Your task to perform on an android device: Clear all items from cart on newegg. Add alienware aurora to the cart on newegg Image 0: 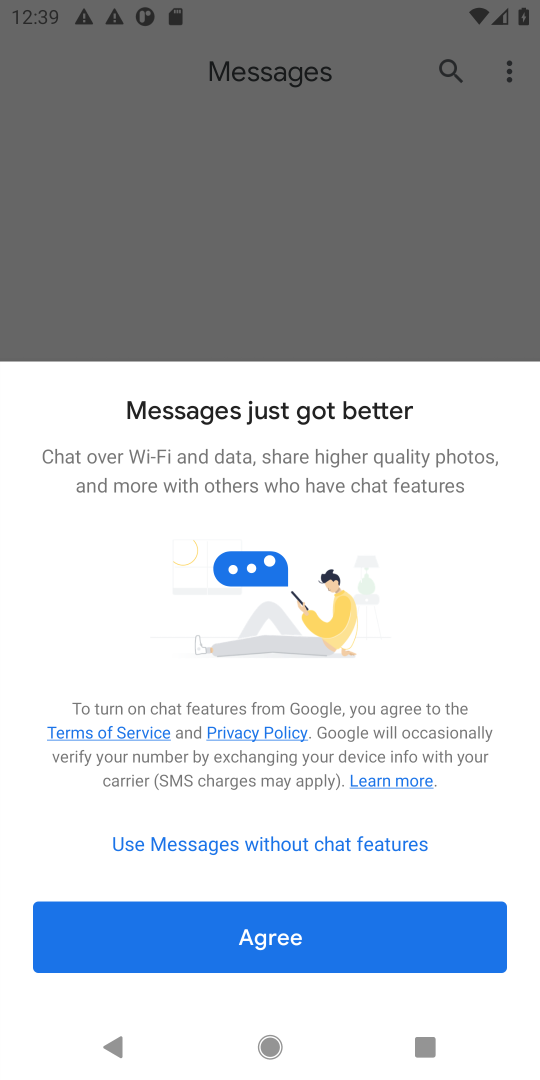
Step 0: press home button
Your task to perform on an android device: Clear all items from cart on newegg. Add alienware aurora to the cart on newegg Image 1: 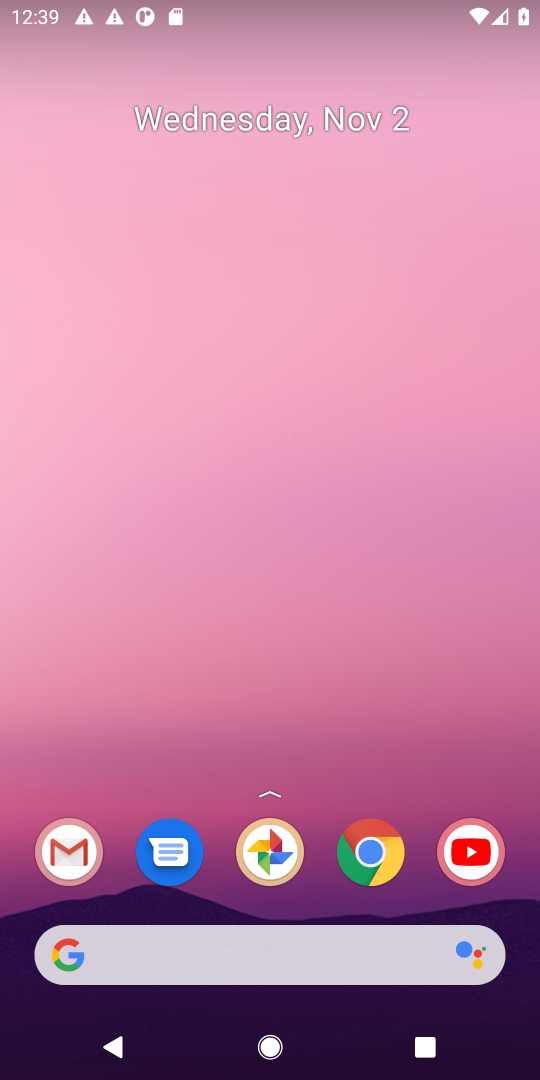
Step 1: click (60, 937)
Your task to perform on an android device: Clear all items from cart on newegg. Add alienware aurora to the cart on newegg Image 2: 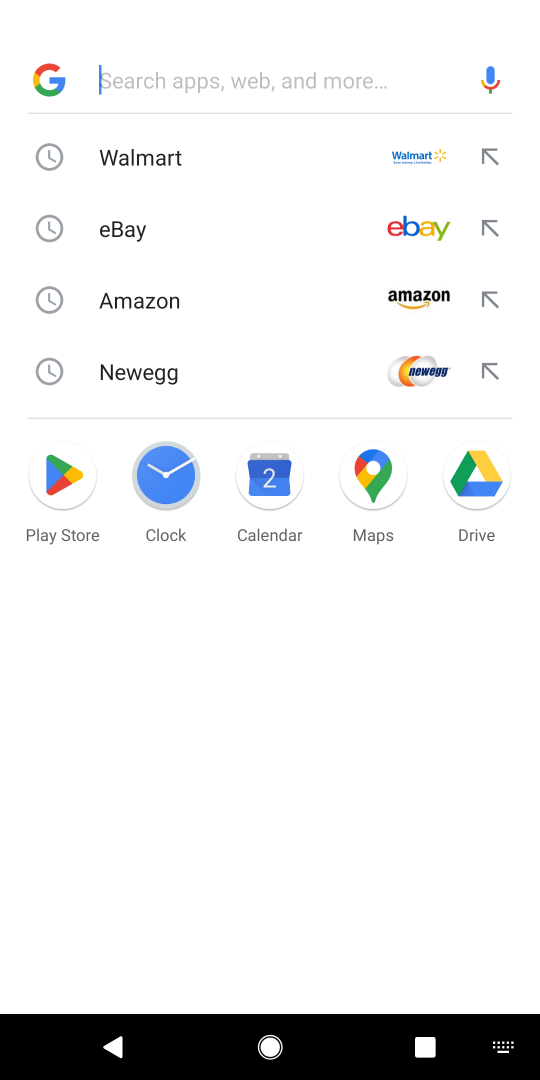
Step 2: click (131, 367)
Your task to perform on an android device: Clear all items from cart on newegg. Add alienware aurora to the cart on newegg Image 3: 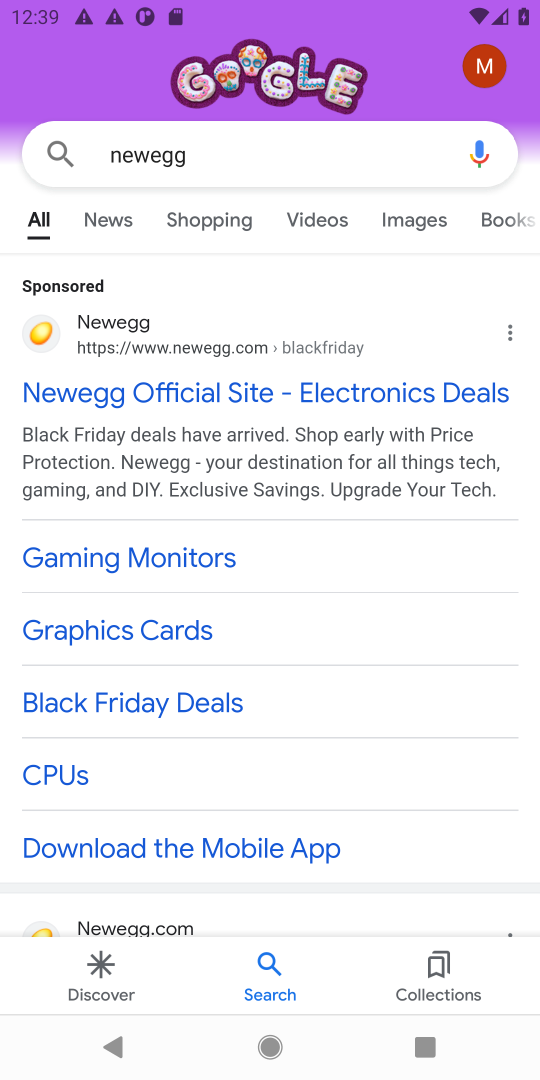
Step 3: click (179, 398)
Your task to perform on an android device: Clear all items from cart on newegg. Add alienware aurora to the cart on newegg Image 4: 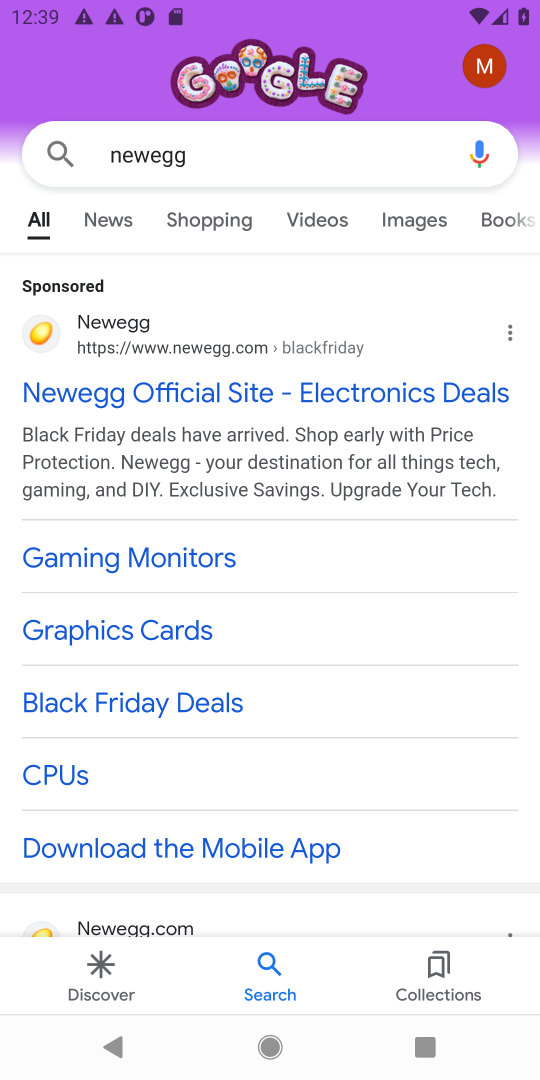
Step 4: click (148, 925)
Your task to perform on an android device: Clear all items from cart on newegg. Add alienware aurora to the cart on newegg Image 5: 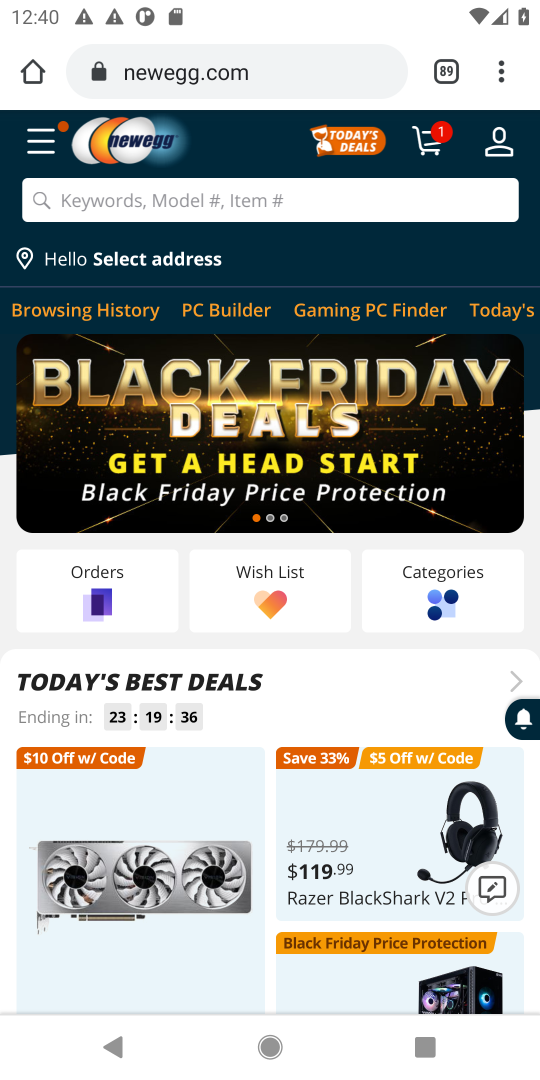
Step 5: click (432, 140)
Your task to perform on an android device: Clear all items from cart on newegg. Add alienware aurora to the cart on newegg Image 6: 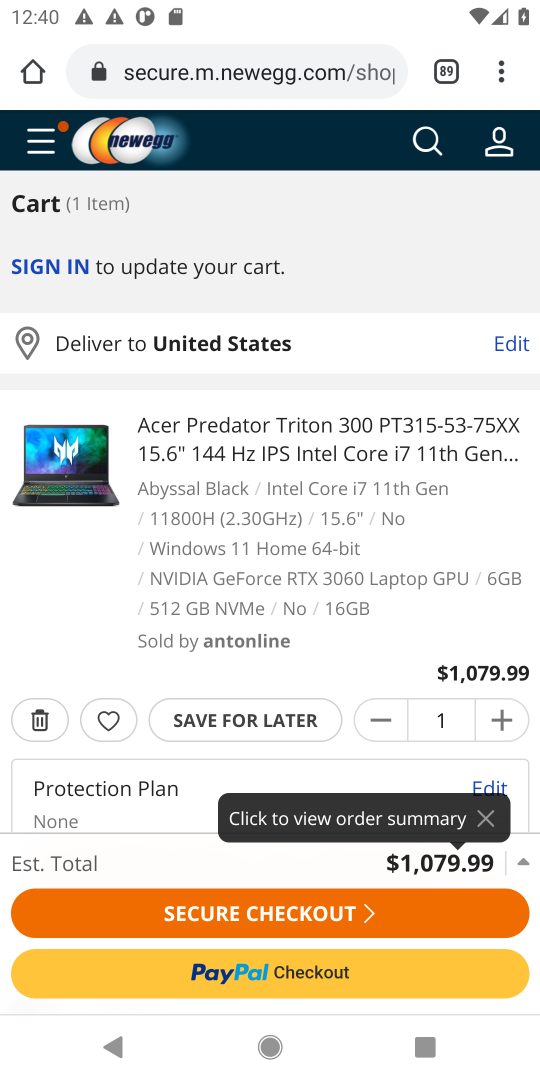
Step 6: click (32, 725)
Your task to perform on an android device: Clear all items from cart on newegg. Add alienware aurora to the cart on newegg Image 7: 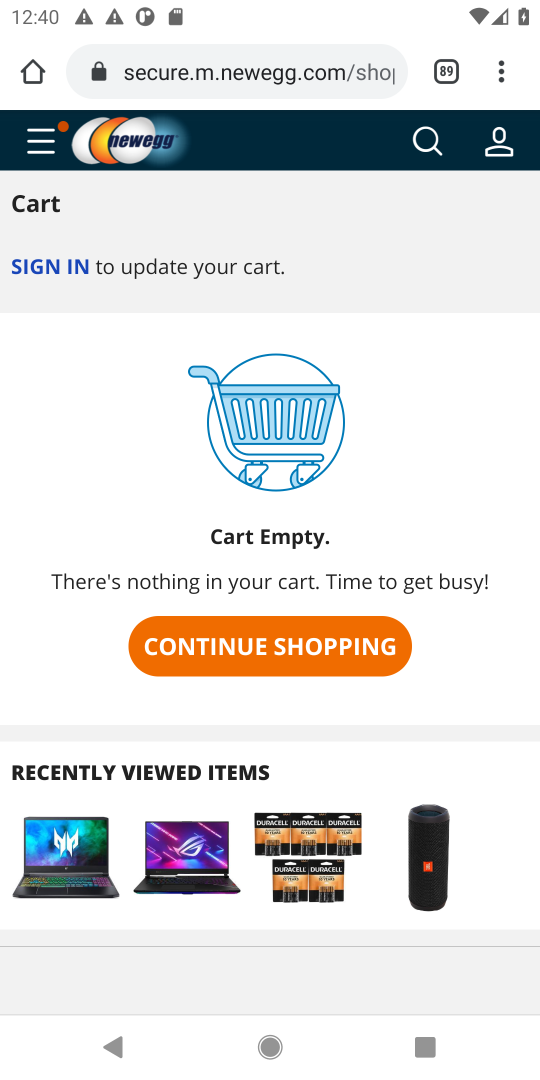
Step 7: click (414, 142)
Your task to perform on an android device: Clear all items from cart on newegg. Add alienware aurora to the cart on newegg Image 8: 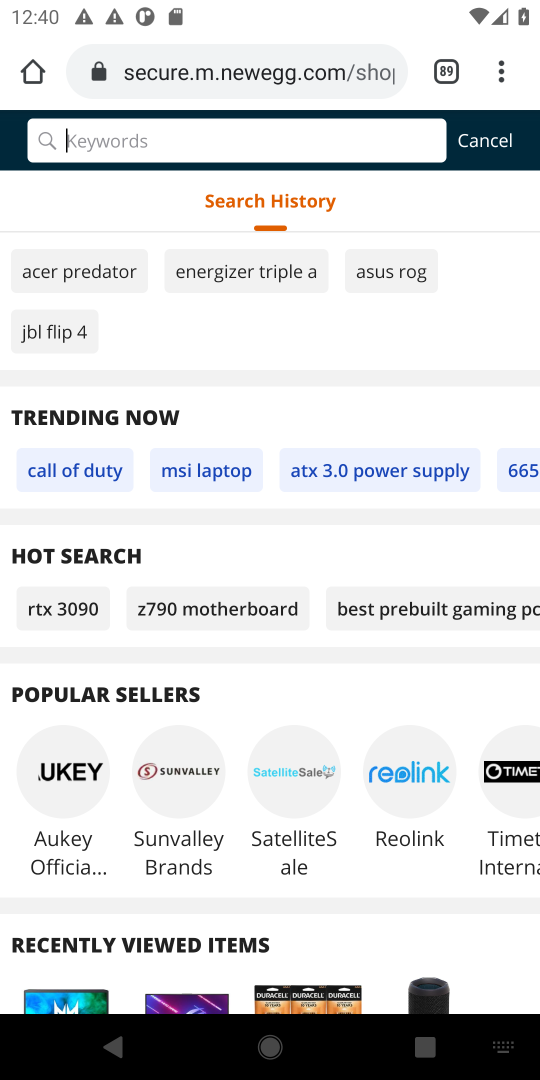
Step 8: type " alienware aurora"
Your task to perform on an android device: Clear all items from cart on newegg. Add alienware aurora to the cart on newegg Image 9: 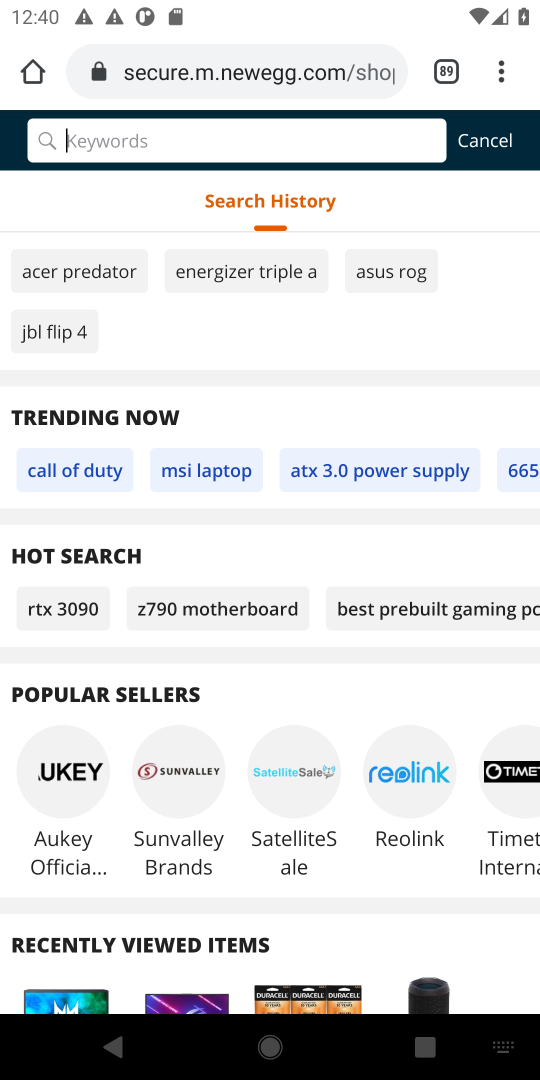
Step 9: click (185, 141)
Your task to perform on an android device: Clear all items from cart on newegg. Add alienware aurora to the cart on newegg Image 10: 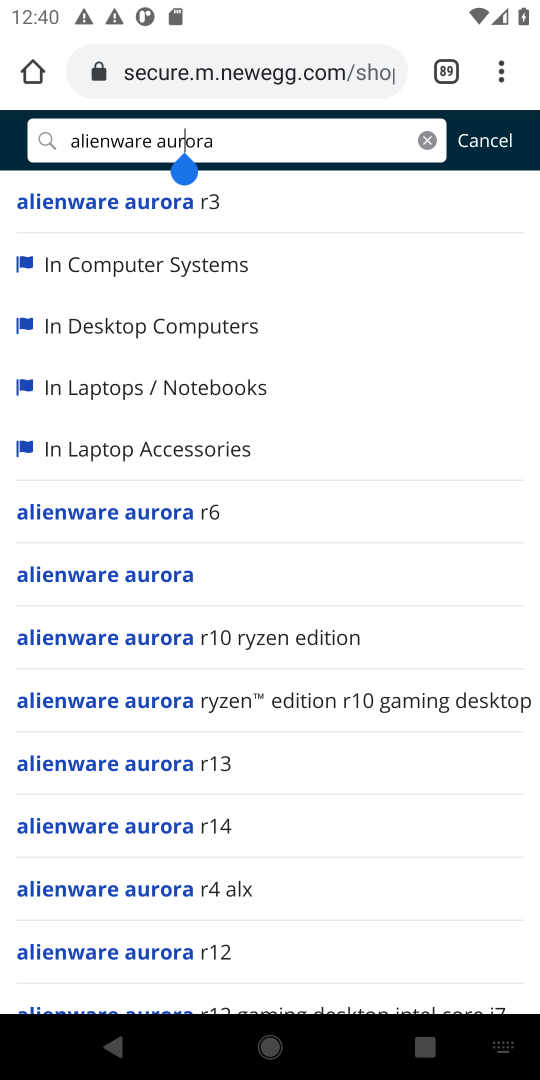
Step 10: press enter
Your task to perform on an android device: Clear all items from cart on newegg. Add alienware aurora to the cart on newegg Image 11: 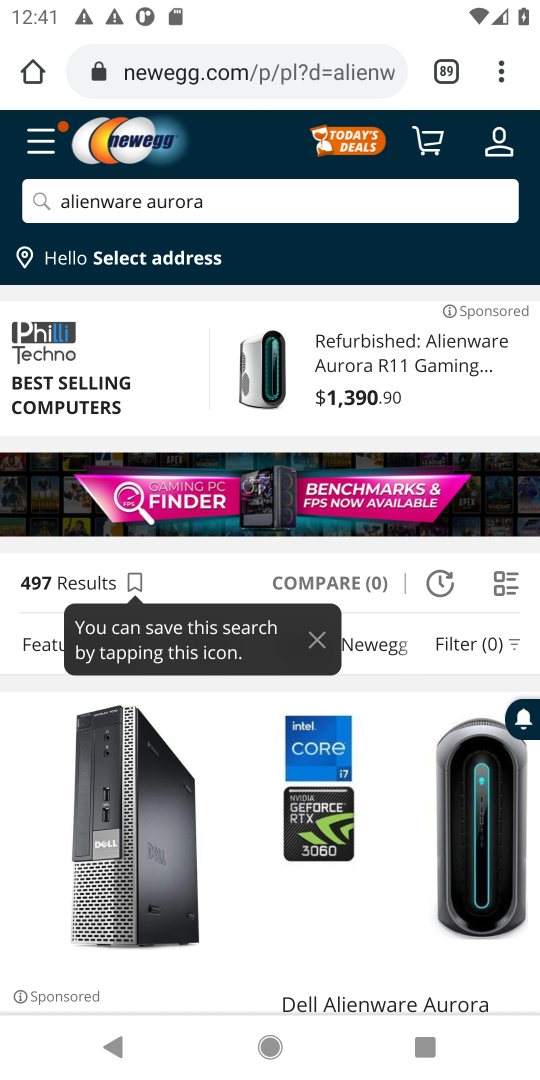
Step 11: click (499, 926)
Your task to perform on an android device: Clear all items from cart on newegg. Add alienware aurora to the cart on newegg Image 12: 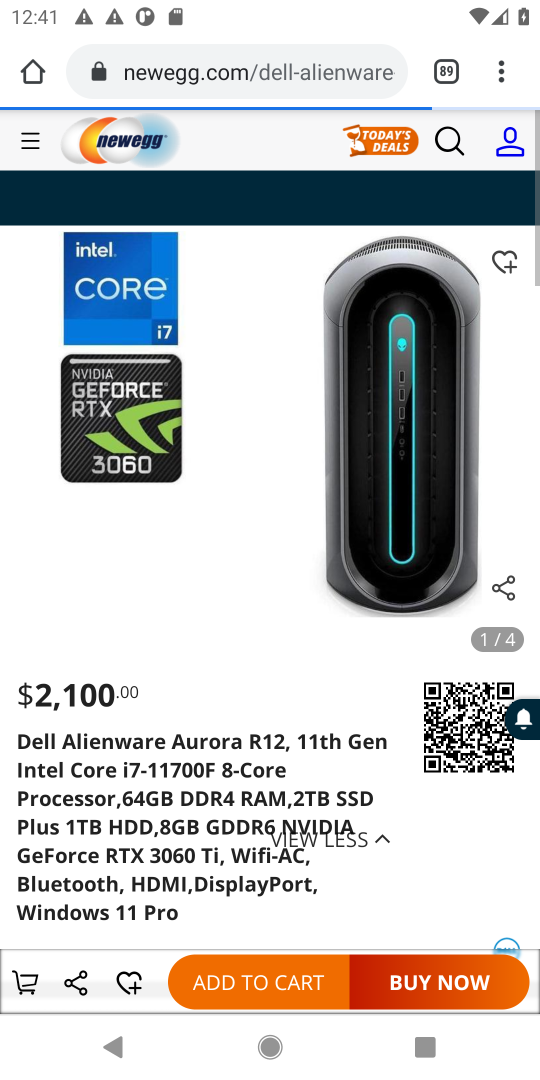
Step 12: click (261, 994)
Your task to perform on an android device: Clear all items from cart on newegg. Add alienware aurora to the cart on newegg Image 13: 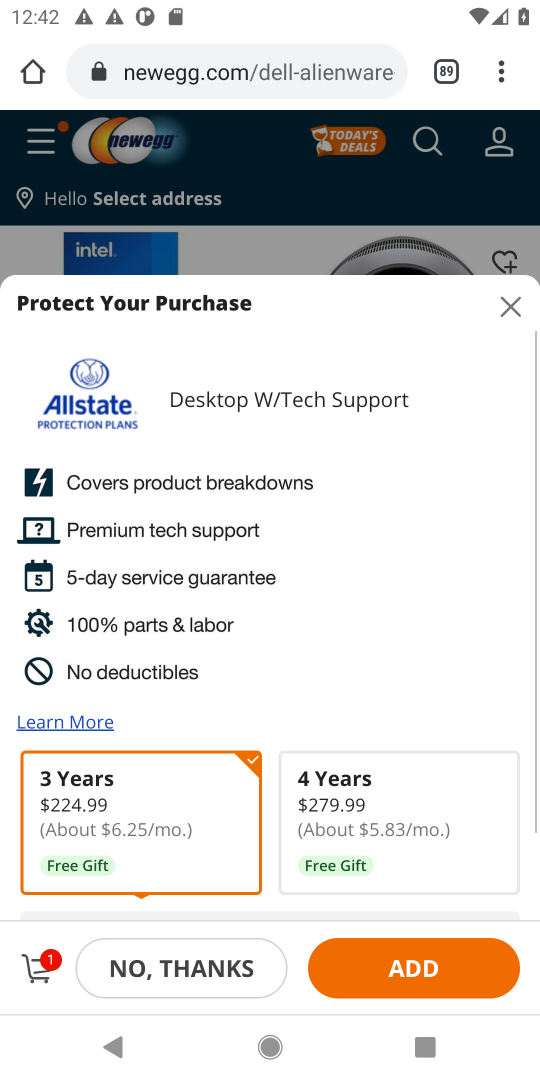
Step 13: task complete